Your task to perform on an android device: Clear all items from cart on ebay.com. Search for "logitech g502" on ebay.com, select the first entry, and add it to the cart. Image 0: 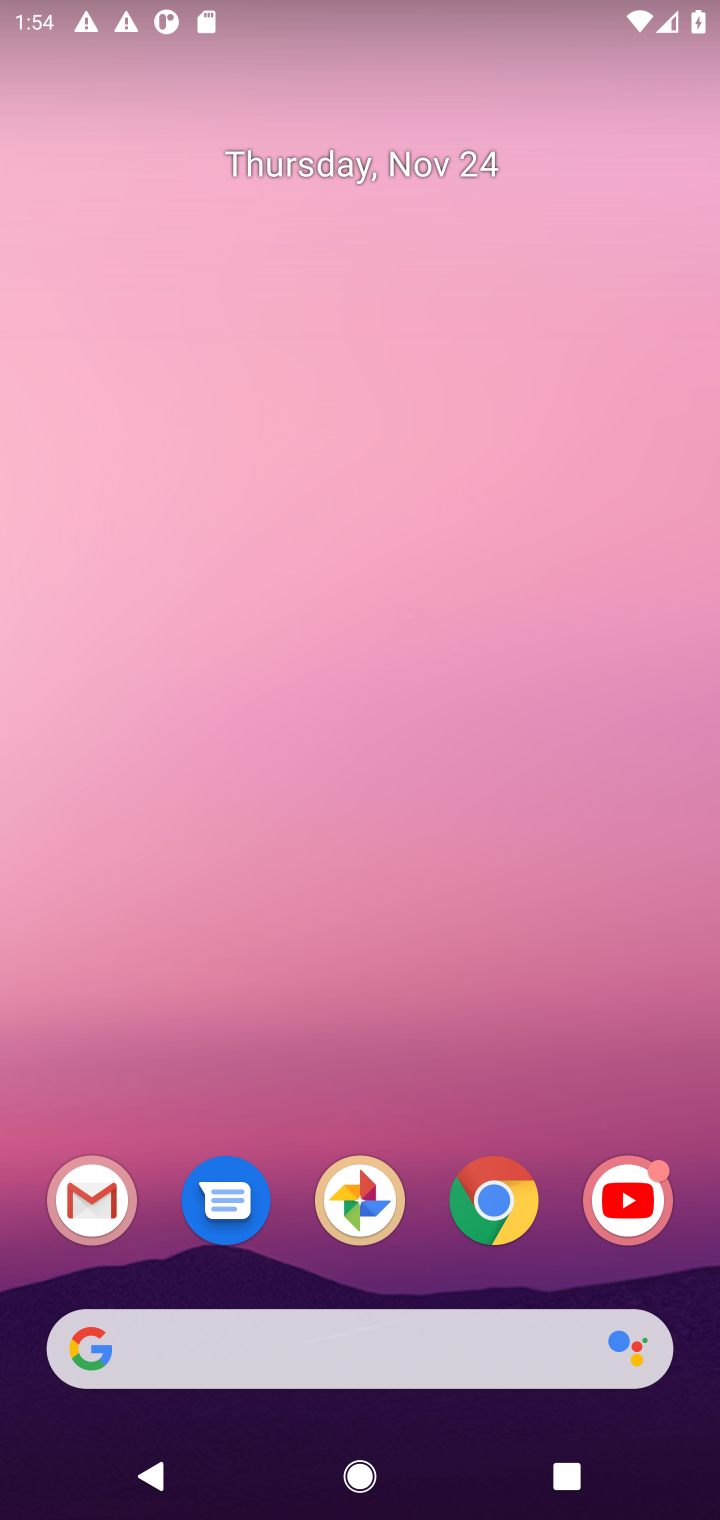
Step 0: click (209, 1357)
Your task to perform on an android device: Clear all items from cart on ebay.com. Search for "logitech g502" on ebay.com, select the first entry, and add it to the cart. Image 1: 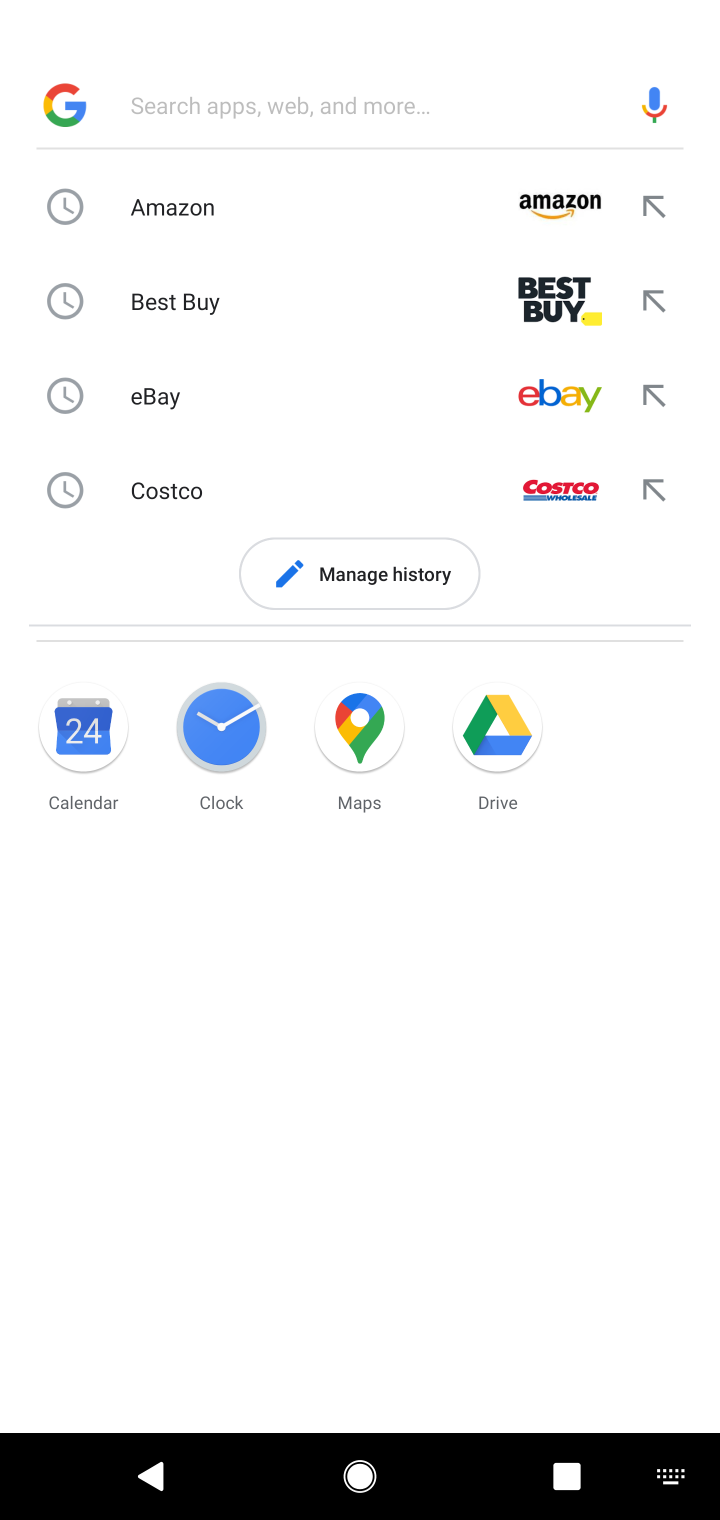
Step 1: type "logitech g502"
Your task to perform on an android device: Clear all items from cart on ebay.com. Search for "logitech g502" on ebay.com, select the first entry, and add it to the cart. Image 2: 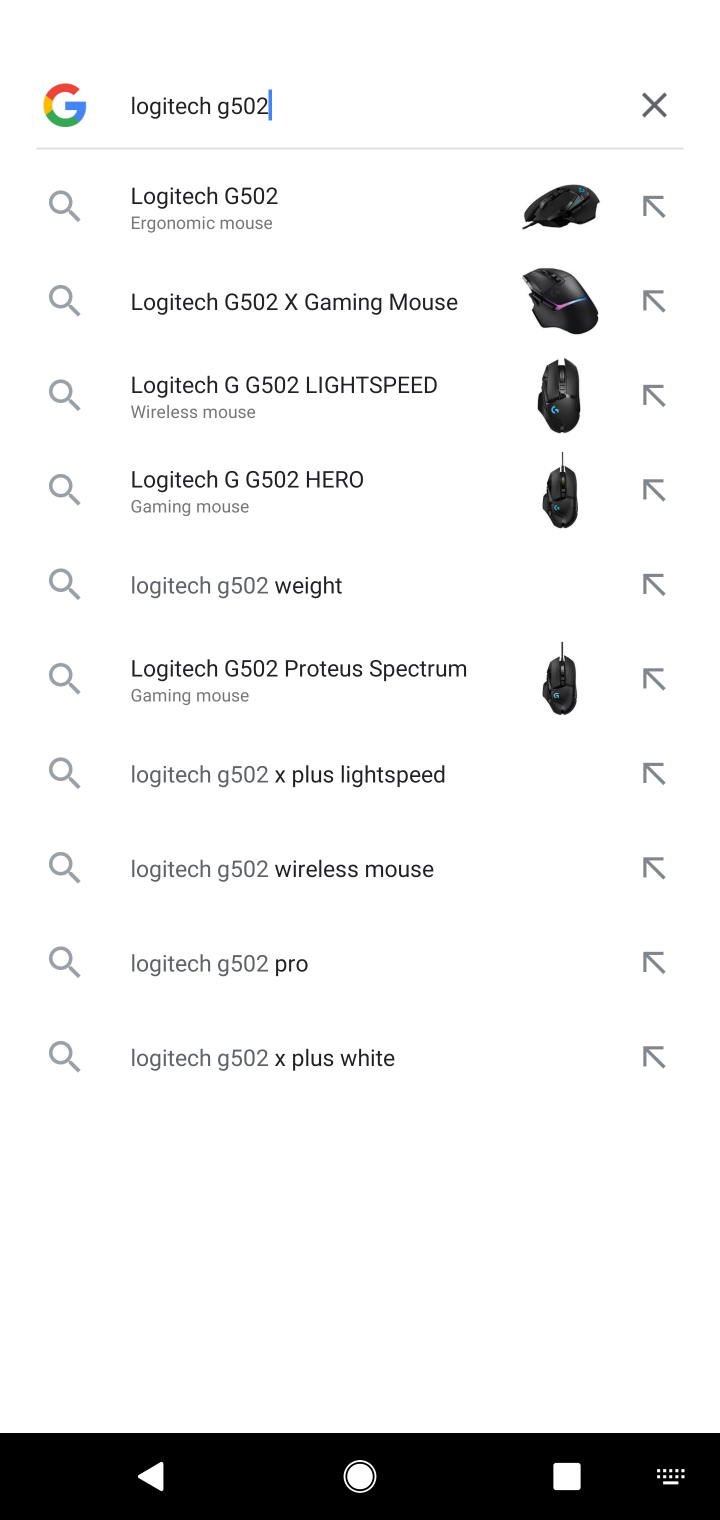
Step 2: click (337, 236)
Your task to perform on an android device: Clear all items from cart on ebay.com. Search for "logitech g502" on ebay.com, select the first entry, and add it to the cart. Image 3: 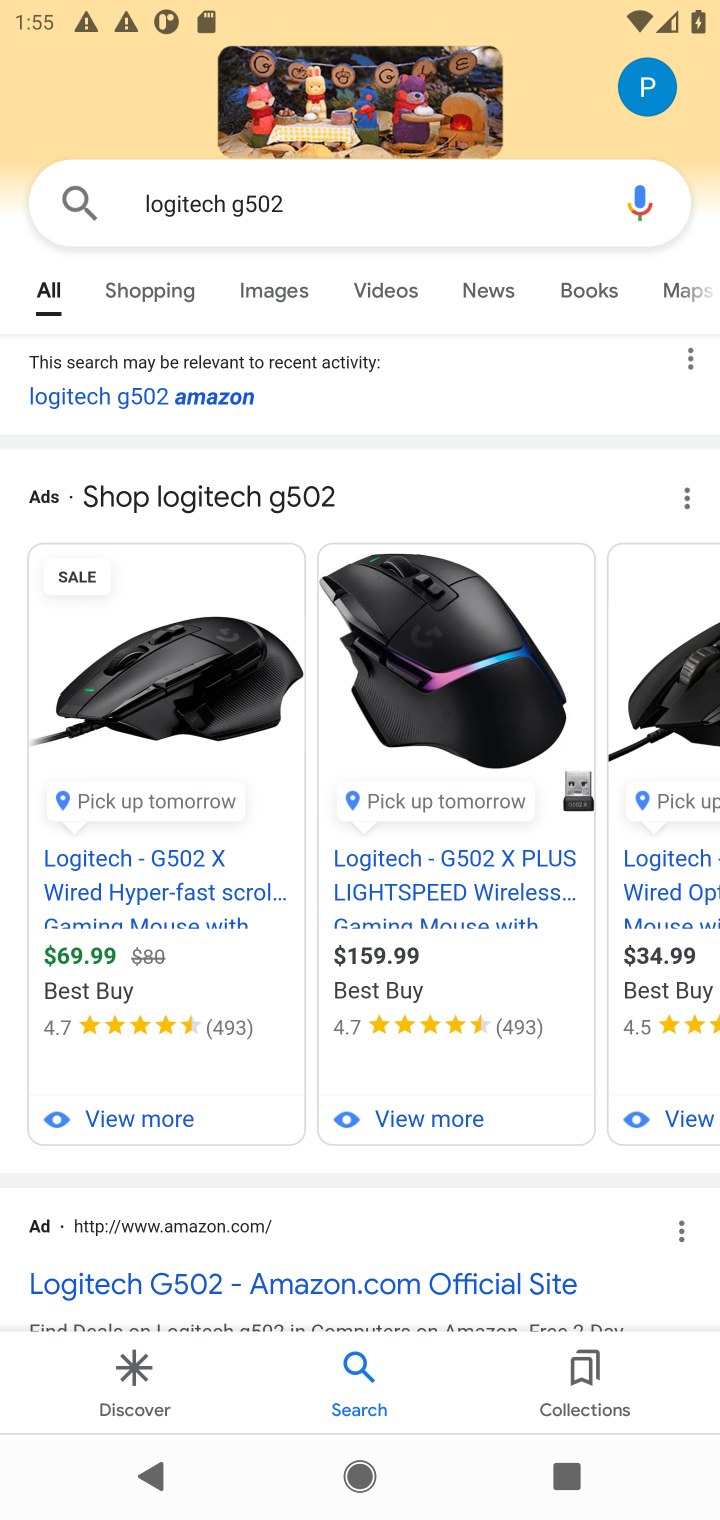
Step 3: click (178, 1295)
Your task to perform on an android device: Clear all items from cart on ebay.com. Search for "logitech g502" on ebay.com, select the first entry, and add it to the cart. Image 4: 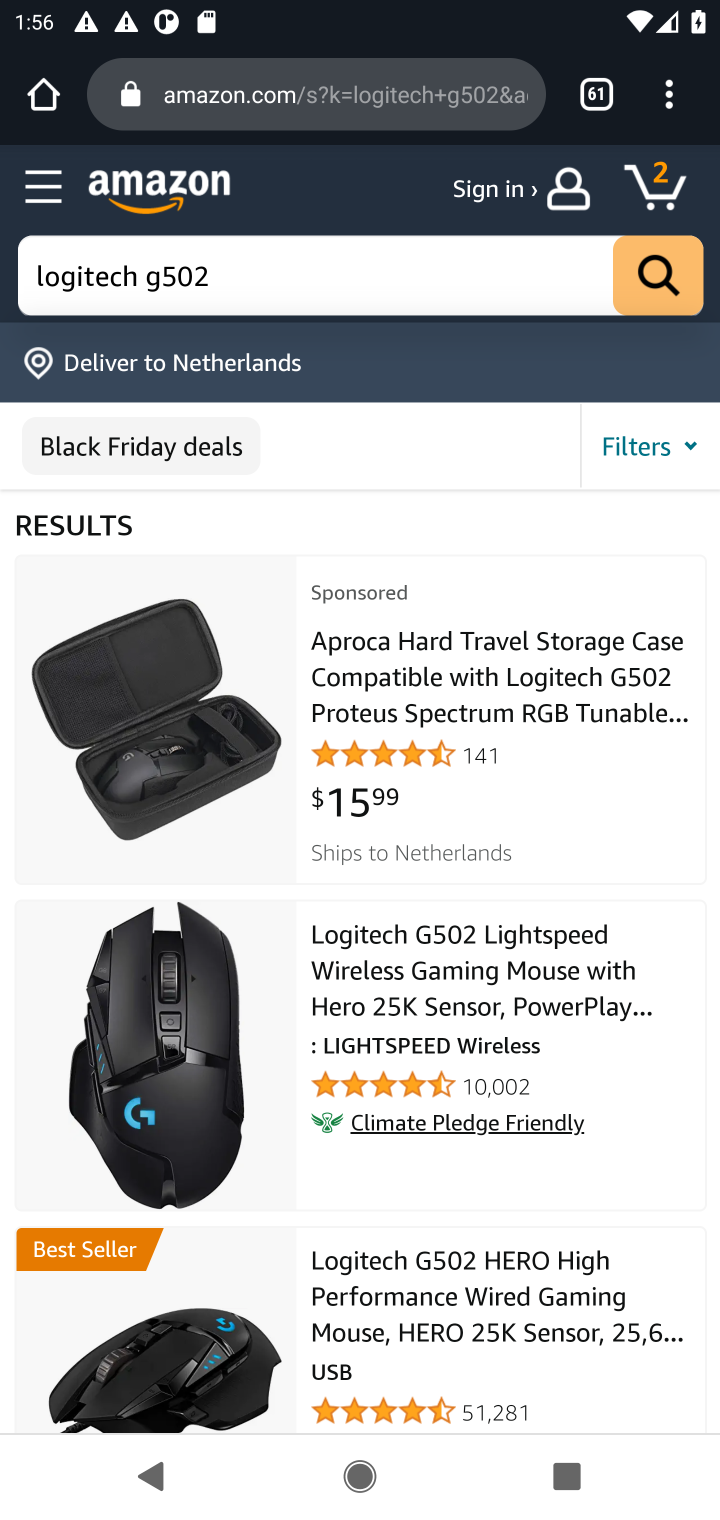
Step 4: task complete